Your task to perform on an android device: delete a single message in the gmail app Image 0: 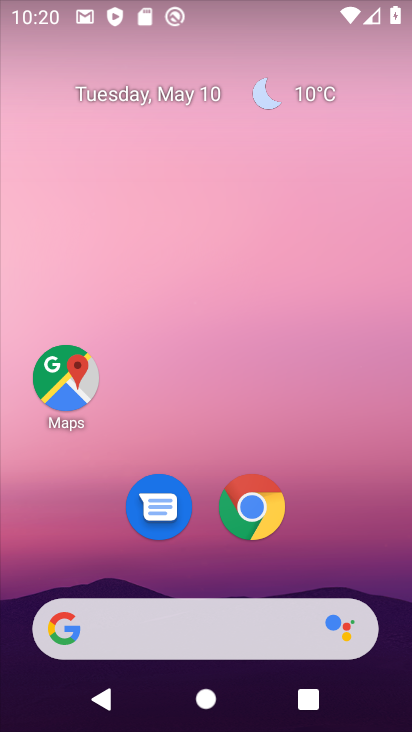
Step 0: drag from (219, 727) to (222, 11)
Your task to perform on an android device: delete a single message in the gmail app Image 1: 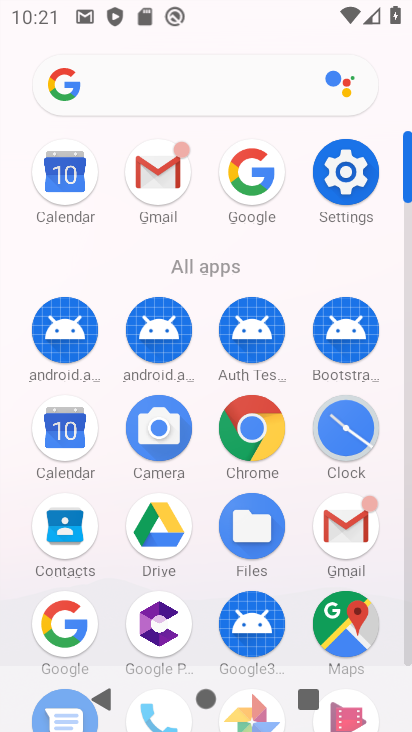
Step 1: click (340, 526)
Your task to perform on an android device: delete a single message in the gmail app Image 2: 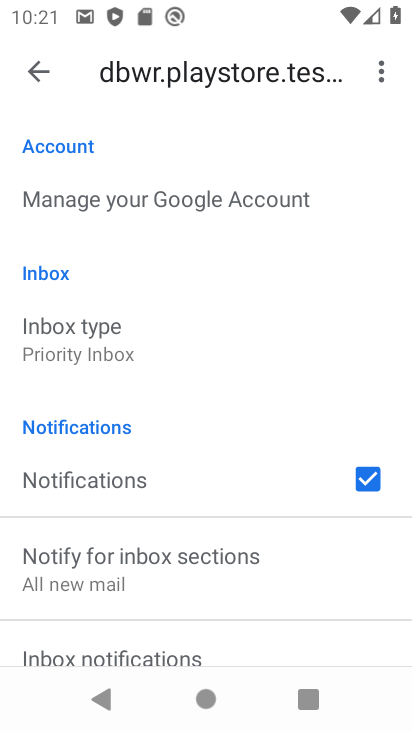
Step 2: click (35, 60)
Your task to perform on an android device: delete a single message in the gmail app Image 3: 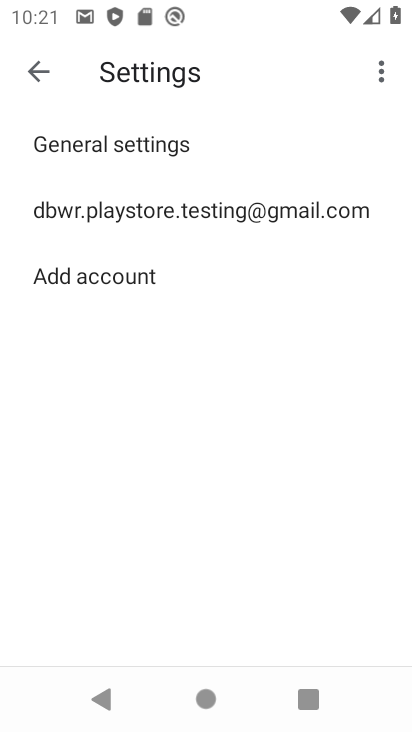
Step 3: click (36, 68)
Your task to perform on an android device: delete a single message in the gmail app Image 4: 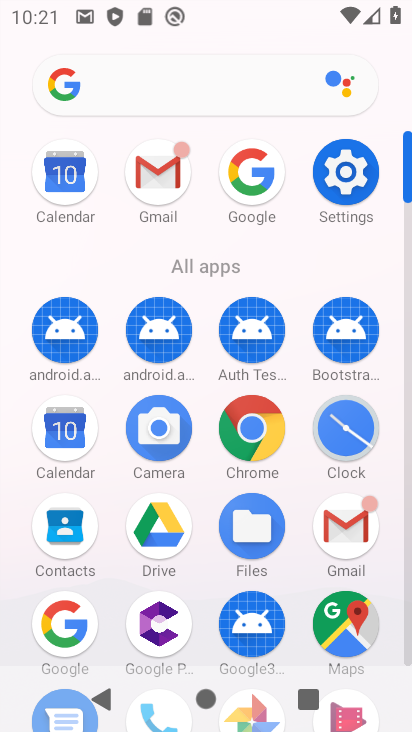
Step 4: click (155, 171)
Your task to perform on an android device: delete a single message in the gmail app Image 5: 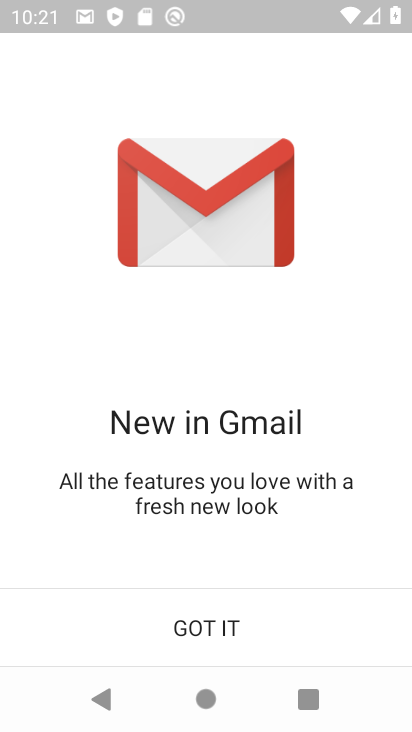
Step 5: click (198, 620)
Your task to perform on an android device: delete a single message in the gmail app Image 6: 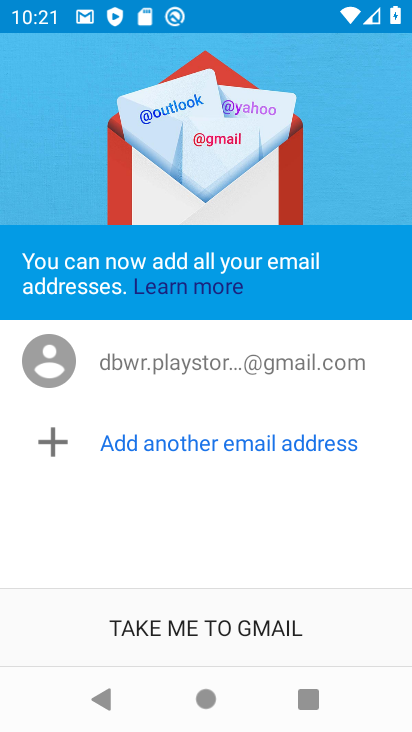
Step 6: click (198, 620)
Your task to perform on an android device: delete a single message in the gmail app Image 7: 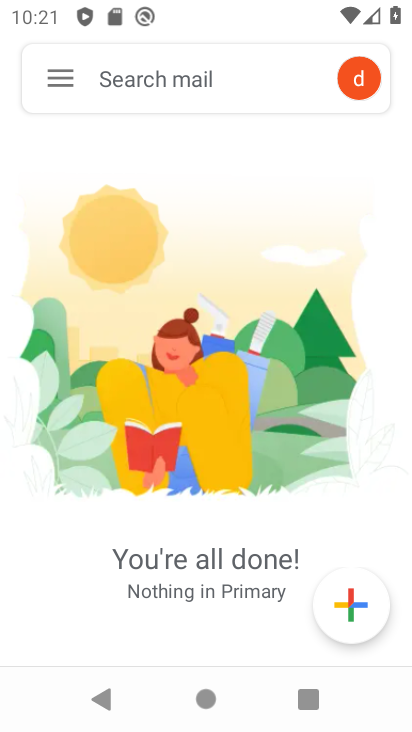
Step 7: task complete